Your task to perform on an android device: open chrome privacy settings Image 0: 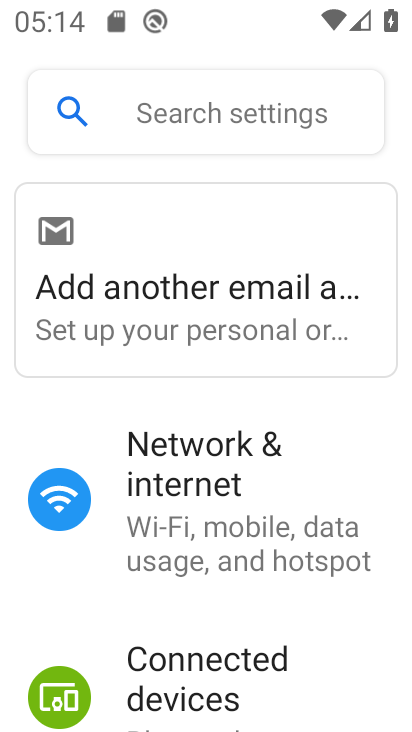
Step 0: press home button
Your task to perform on an android device: open chrome privacy settings Image 1: 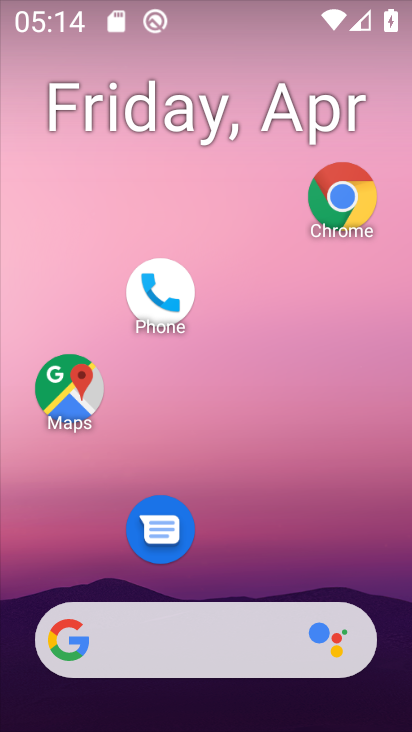
Step 1: drag from (244, 582) to (265, 3)
Your task to perform on an android device: open chrome privacy settings Image 2: 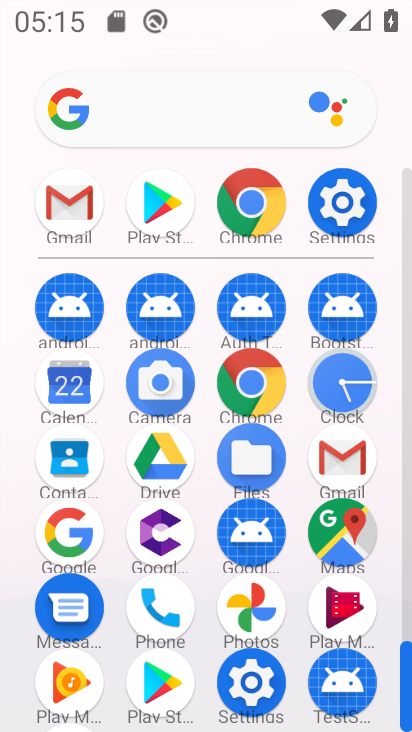
Step 2: drag from (202, 640) to (225, 220)
Your task to perform on an android device: open chrome privacy settings Image 3: 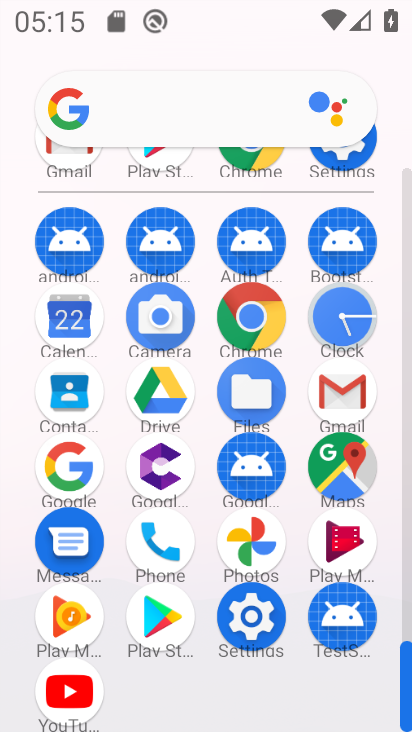
Step 3: click (253, 606)
Your task to perform on an android device: open chrome privacy settings Image 4: 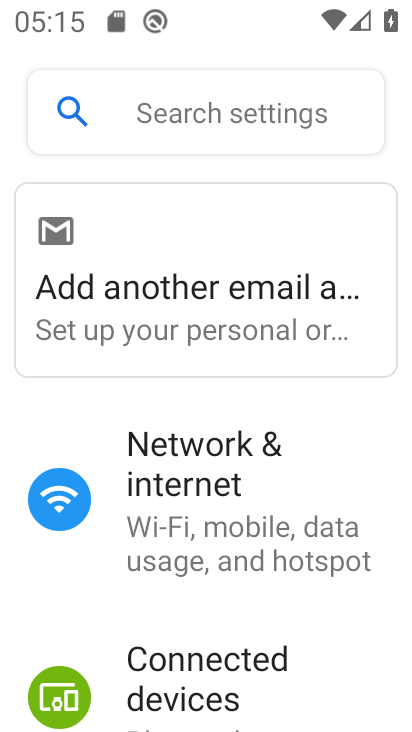
Step 4: drag from (210, 682) to (242, 160)
Your task to perform on an android device: open chrome privacy settings Image 5: 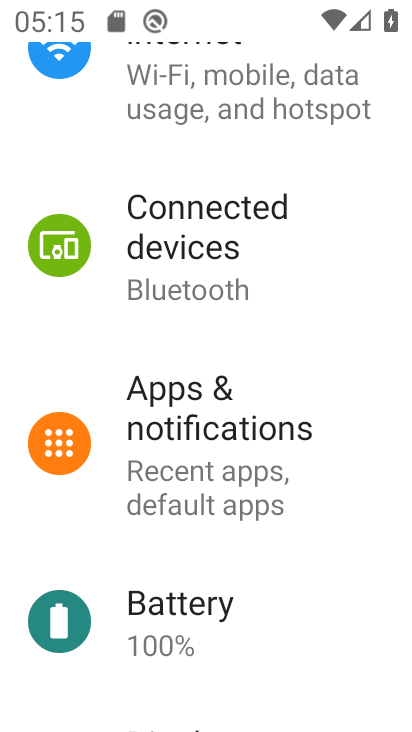
Step 5: drag from (189, 682) to (205, 145)
Your task to perform on an android device: open chrome privacy settings Image 6: 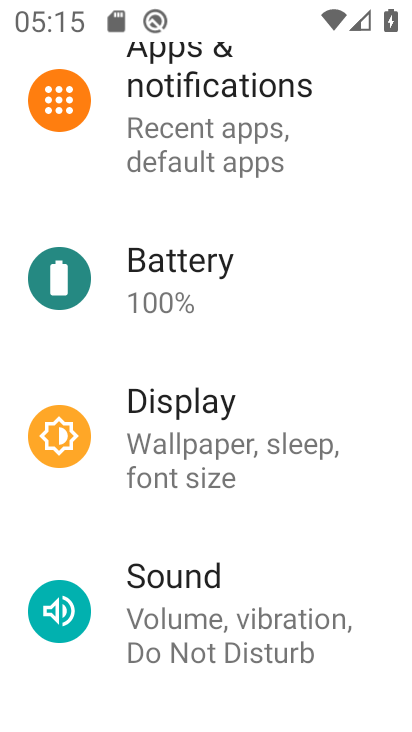
Step 6: drag from (221, 635) to (218, 47)
Your task to perform on an android device: open chrome privacy settings Image 7: 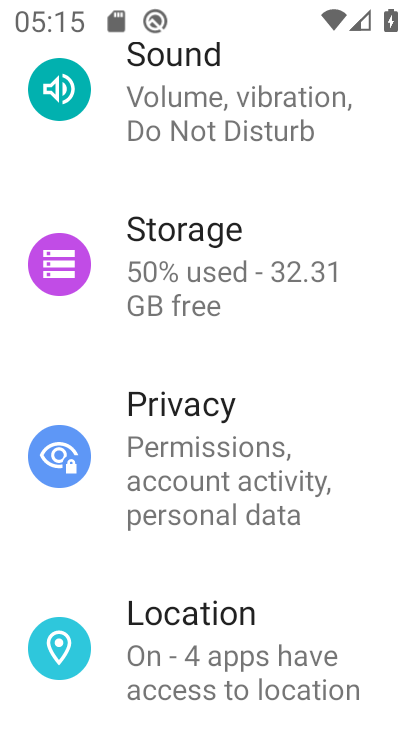
Step 7: click (204, 430)
Your task to perform on an android device: open chrome privacy settings Image 8: 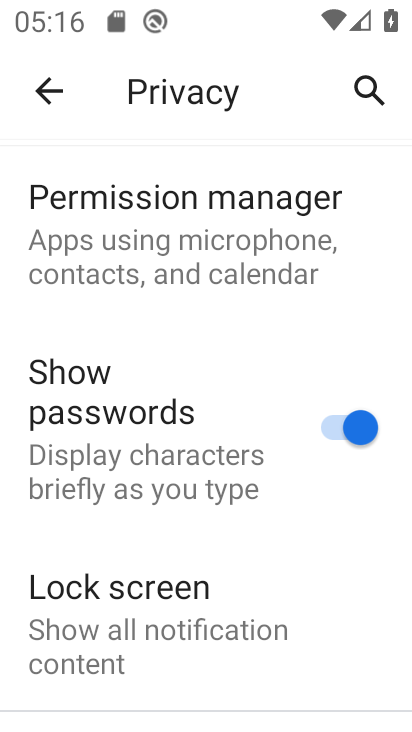
Step 8: drag from (204, 638) to (188, 86)
Your task to perform on an android device: open chrome privacy settings Image 9: 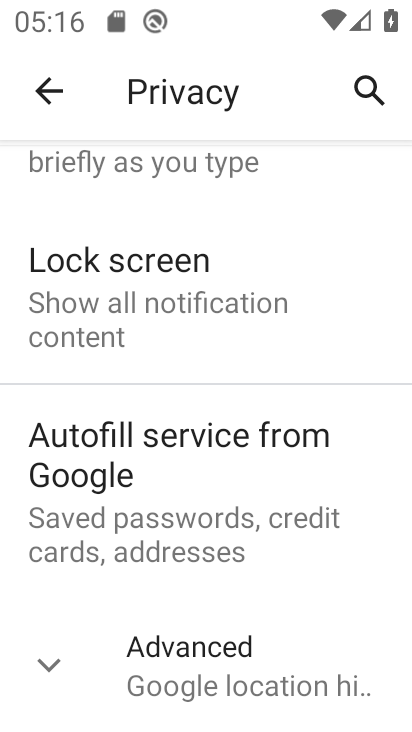
Step 9: click (49, 660)
Your task to perform on an android device: open chrome privacy settings Image 10: 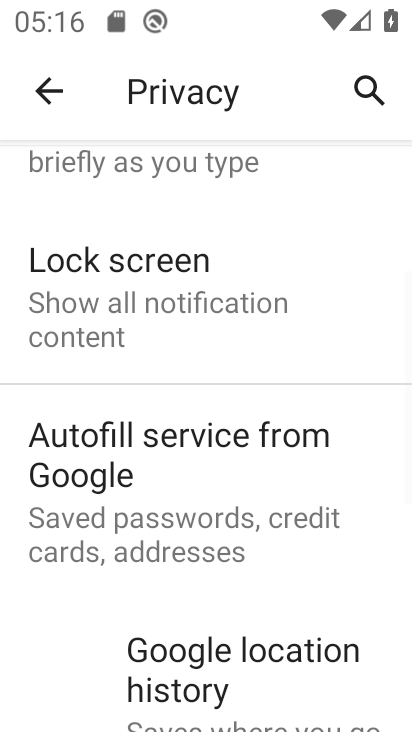
Step 10: task complete